Your task to perform on an android device: Search for sushi restaurants on Maps Image 0: 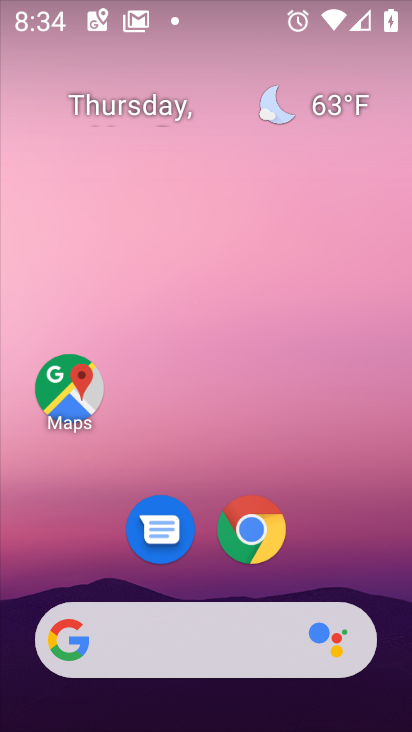
Step 0: click (80, 397)
Your task to perform on an android device: Search for sushi restaurants on Maps Image 1: 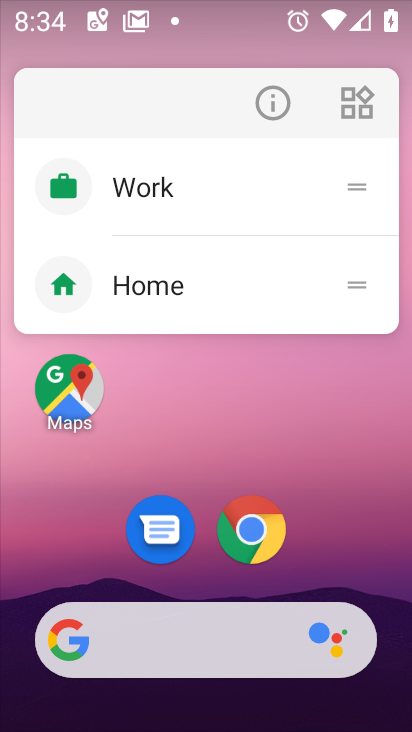
Step 1: click (93, 409)
Your task to perform on an android device: Search for sushi restaurants on Maps Image 2: 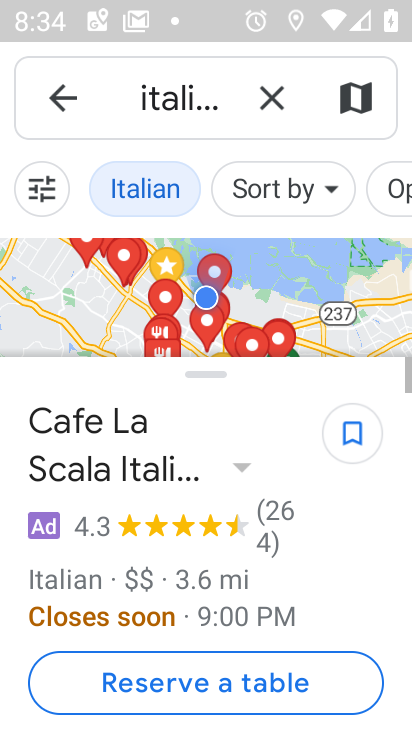
Step 2: click (259, 82)
Your task to perform on an android device: Search for sushi restaurants on Maps Image 3: 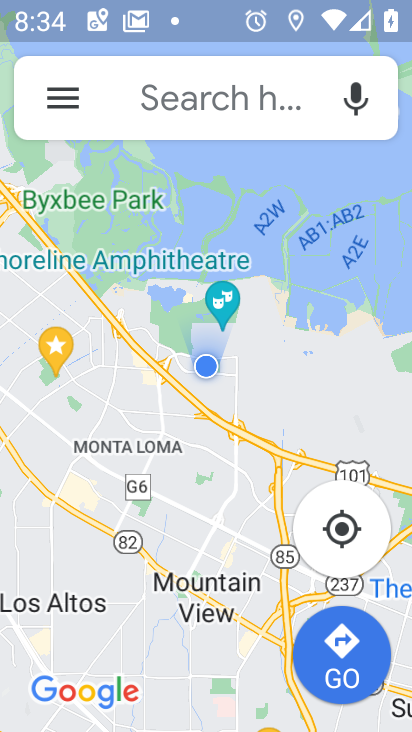
Step 3: type "sushi restaurants"
Your task to perform on an android device: Search for sushi restaurants on Maps Image 4: 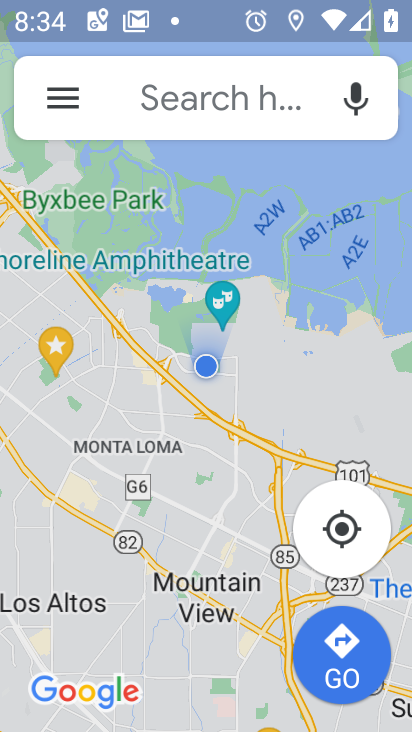
Step 4: click (236, 117)
Your task to perform on an android device: Search for sushi restaurants on Maps Image 5: 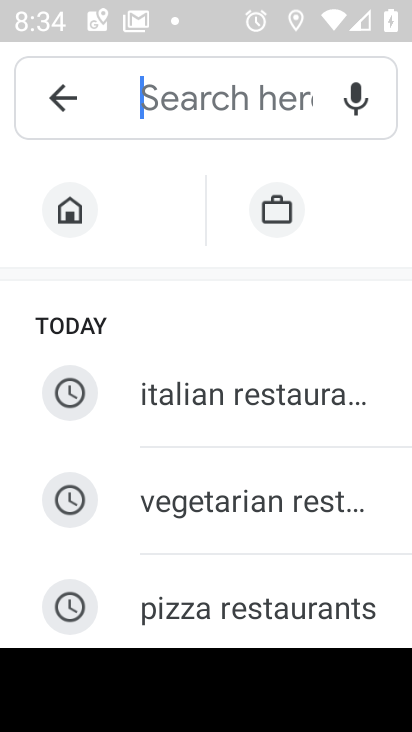
Step 5: type "sushi restaurants"
Your task to perform on an android device: Search for sushi restaurants on Maps Image 6: 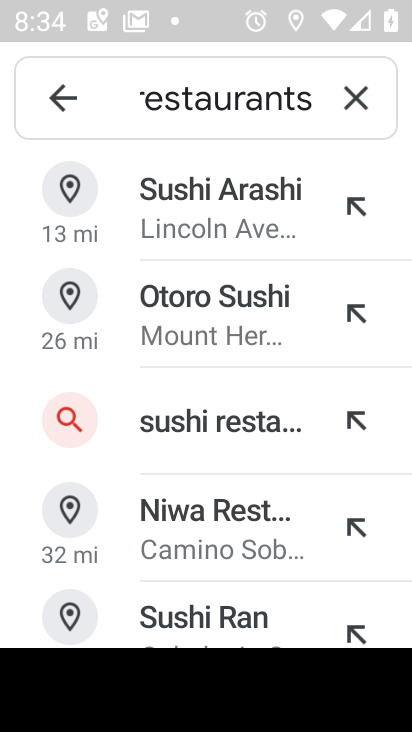
Step 6: click (191, 414)
Your task to perform on an android device: Search for sushi restaurants on Maps Image 7: 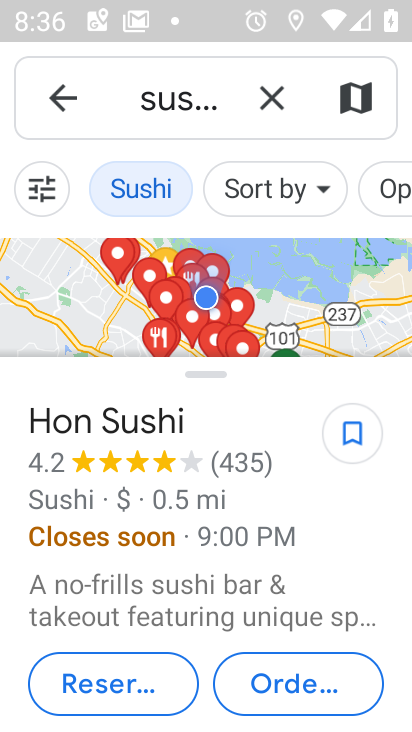
Step 7: task complete